Your task to perform on an android device: Go to battery settings Image 0: 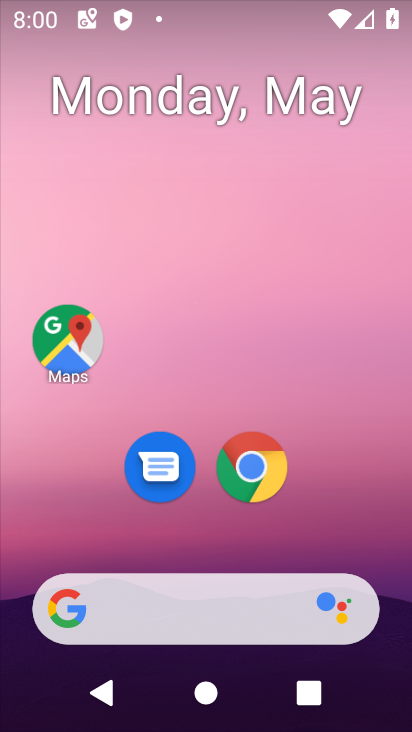
Step 0: press home button
Your task to perform on an android device: Go to battery settings Image 1: 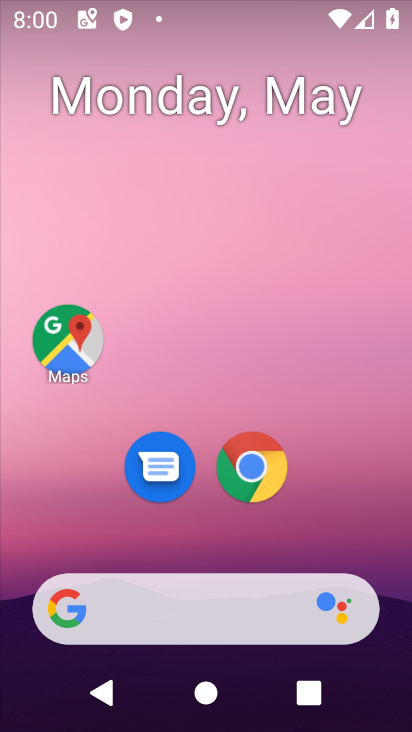
Step 1: drag from (318, 545) to (233, 73)
Your task to perform on an android device: Go to battery settings Image 2: 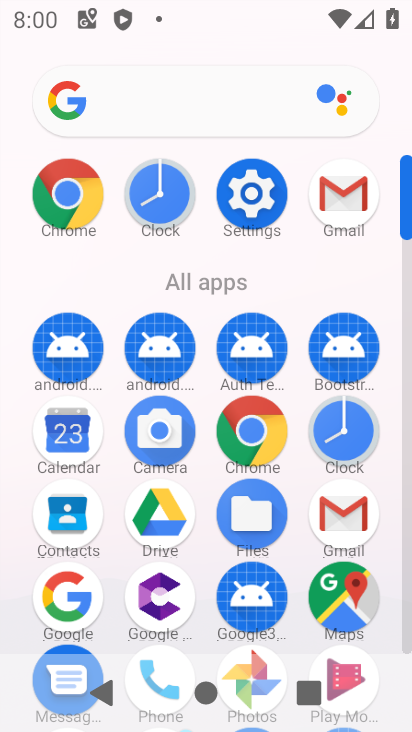
Step 2: click (244, 182)
Your task to perform on an android device: Go to battery settings Image 3: 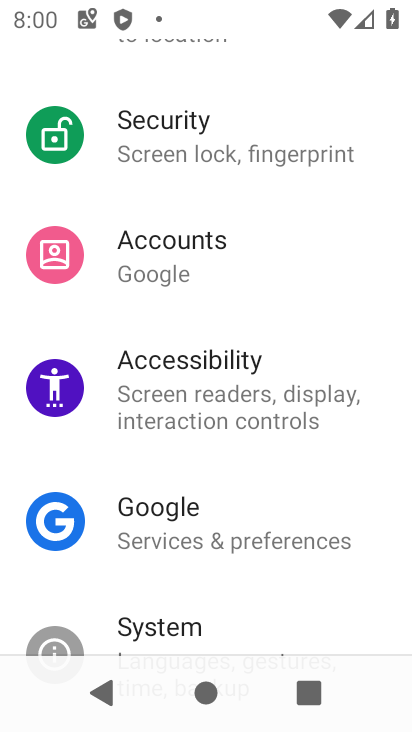
Step 3: drag from (263, 182) to (224, 644)
Your task to perform on an android device: Go to battery settings Image 4: 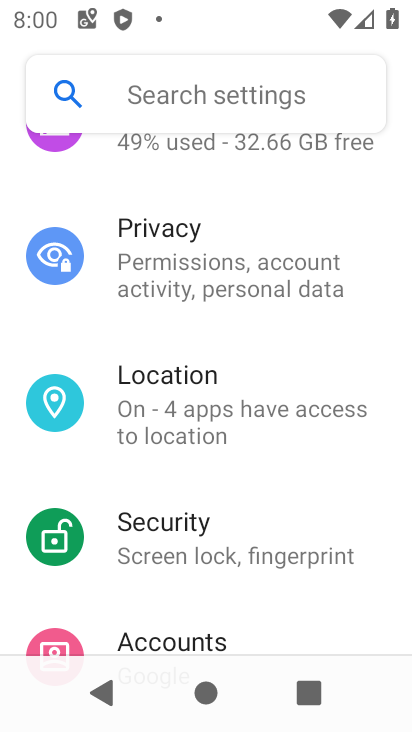
Step 4: drag from (251, 216) to (228, 625)
Your task to perform on an android device: Go to battery settings Image 5: 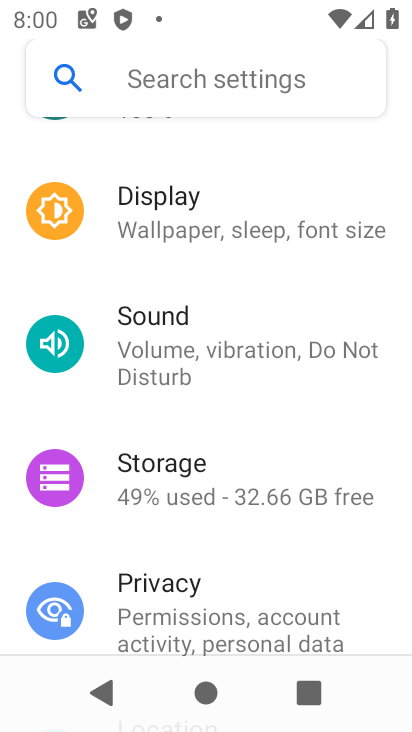
Step 5: drag from (249, 218) to (218, 591)
Your task to perform on an android device: Go to battery settings Image 6: 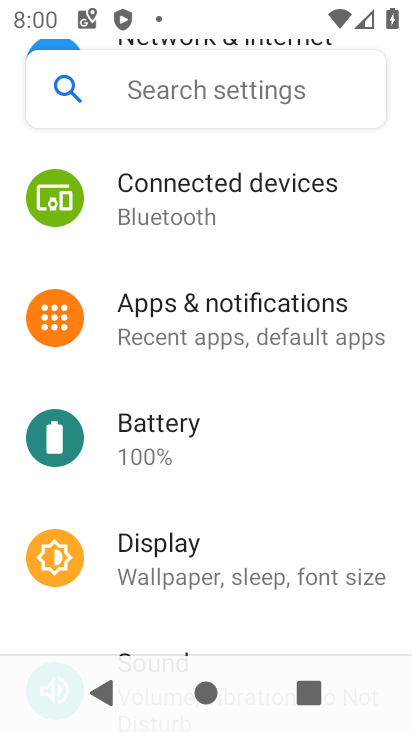
Step 6: click (209, 434)
Your task to perform on an android device: Go to battery settings Image 7: 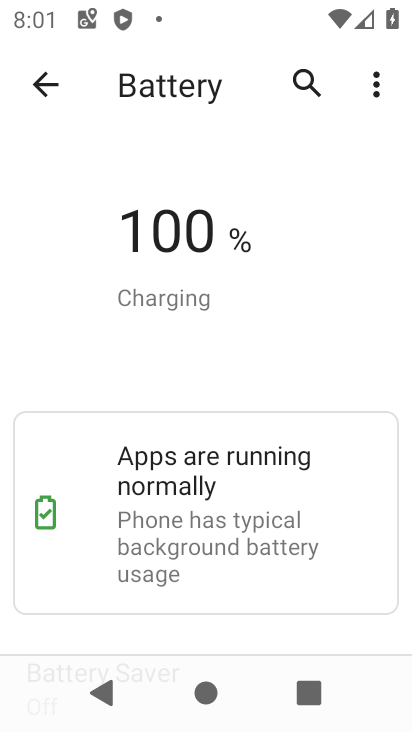
Step 7: task complete